Your task to perform on an android device: Go to display settings Image 0: 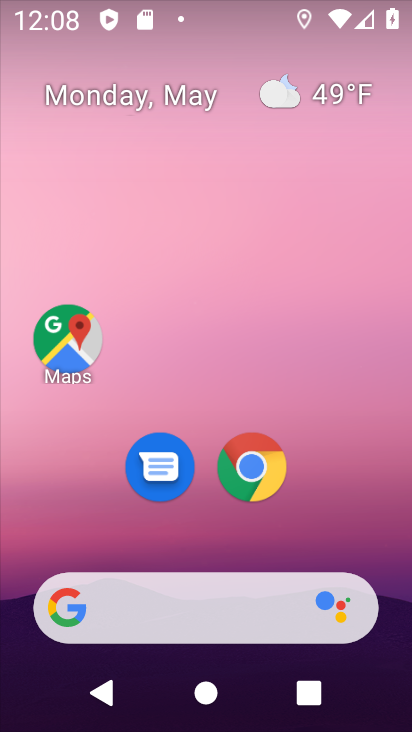
Step 0: drag from (363, 521) to (358, 133)
Your task to perform on an android device: Go to display settings Image 1: 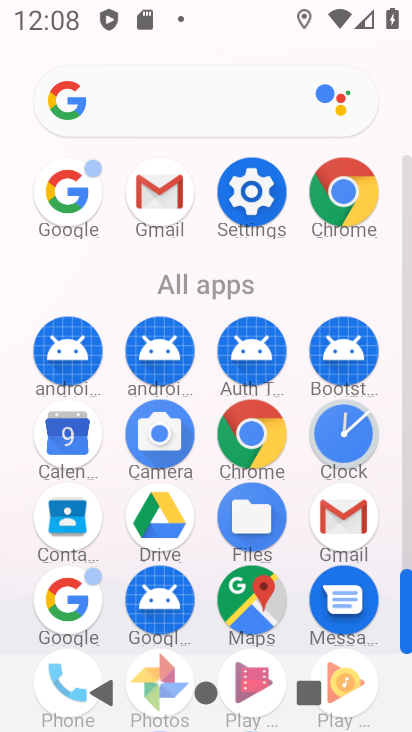
Step 1: click (273, 198)
Your task to perform on an android device: Go to display settings Image 2: 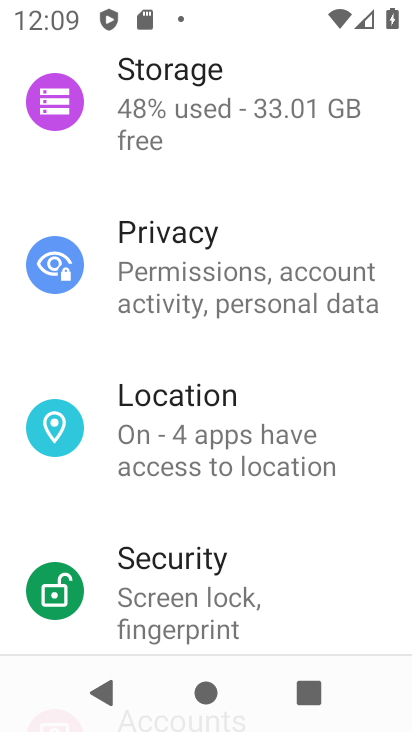
Step 2: drag from (240, 137) to (243, 498)
Your task to perform on an android device: Go to display settings Image 3: 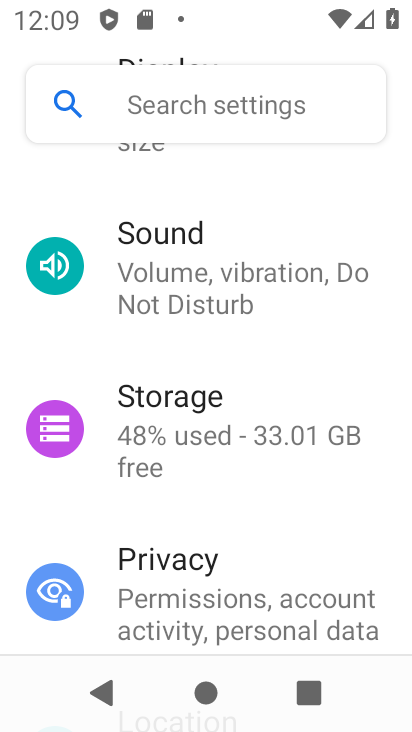
Step 3: drag from (254, 255) to (279, 534)
Your task to perform on an android device: Go to display settings Image 4: 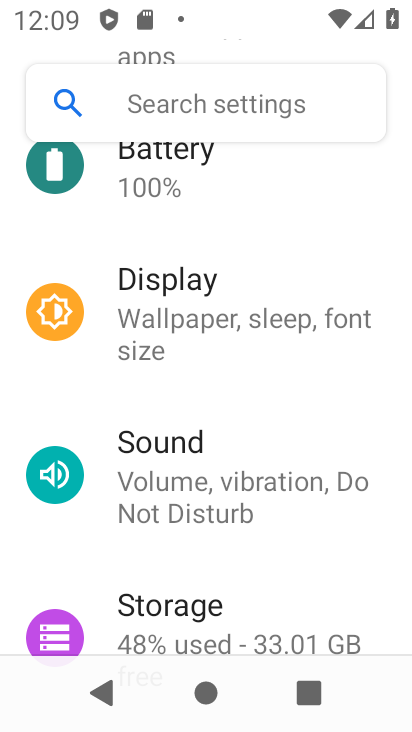
Step 4: click (217, 348)
Your task to perform on an android device: Go to display settings Image 5: 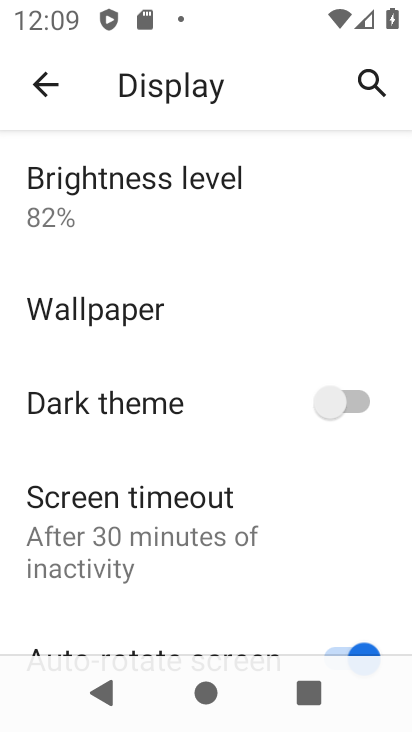
Step 5: drag from (199, 609) to (231, 285)
Your task to perform on an android device: Go to display settings Image 6: 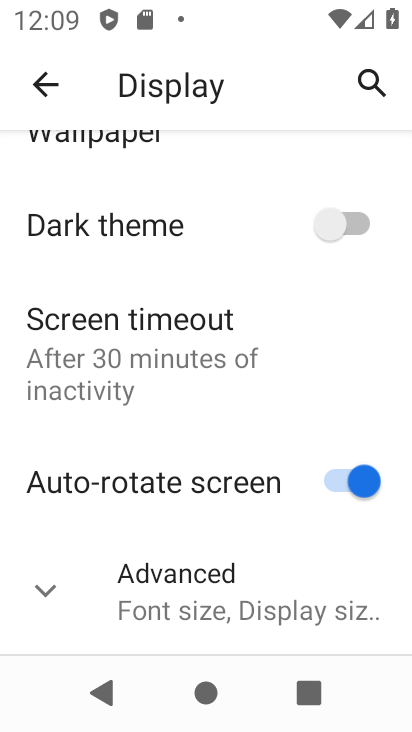
Step 6: click (160, 588)
Your task to perform on an android device: Go to display settings Image 7: 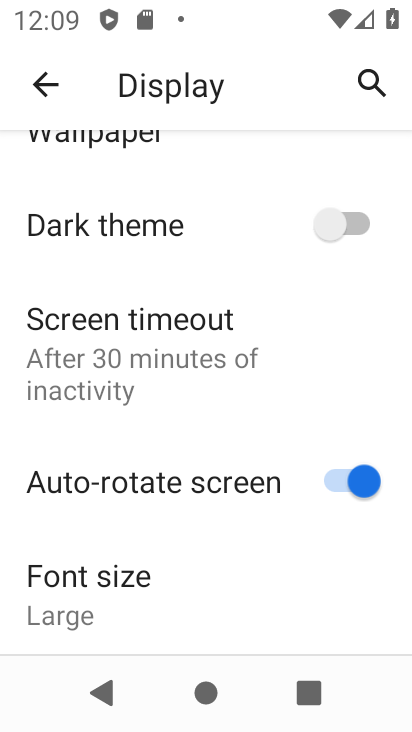
Step 7: task complete